Your task to perform on an android device: change the clock display to show seconds Image 0: 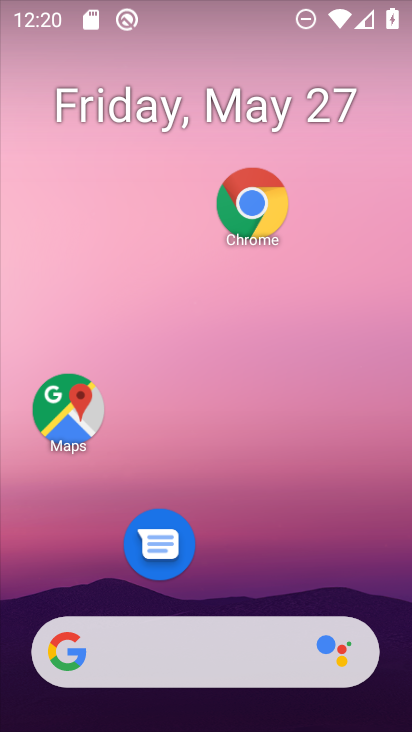
Step 0: drag from (217, 412) to (201, 41)
Your task to perform on an android device: change the clock display to show seconds Image 1: 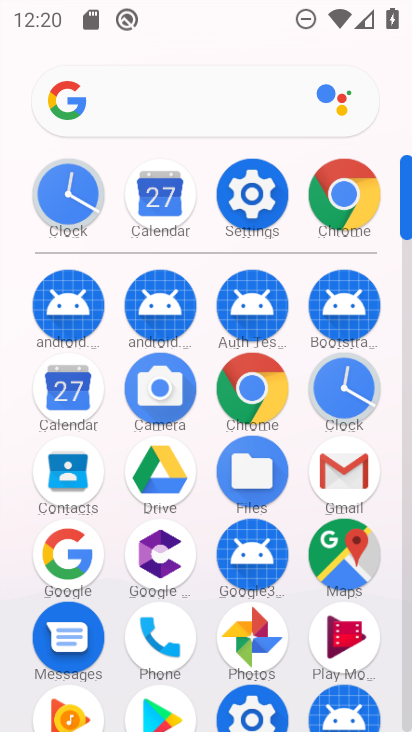
Step 1: click (341, 403)
Your task to perform on an android device: change the clock display to show seconds Image 2: 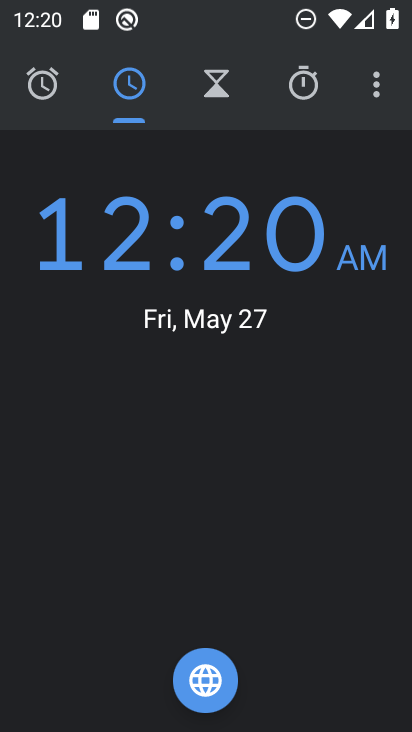
Step 2: click (376, 93)
Your task to perform on an android device: change the clock display to show seconds Image 3: 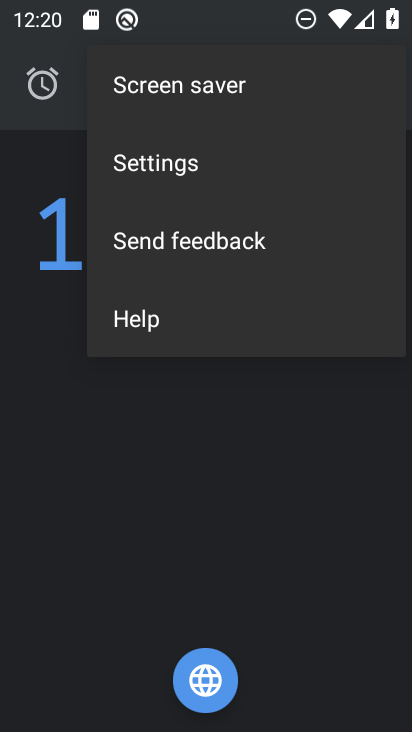
Step 3: click (234, 169)
Your task to perform on an android device: change the clock display to show seconds Image 4: 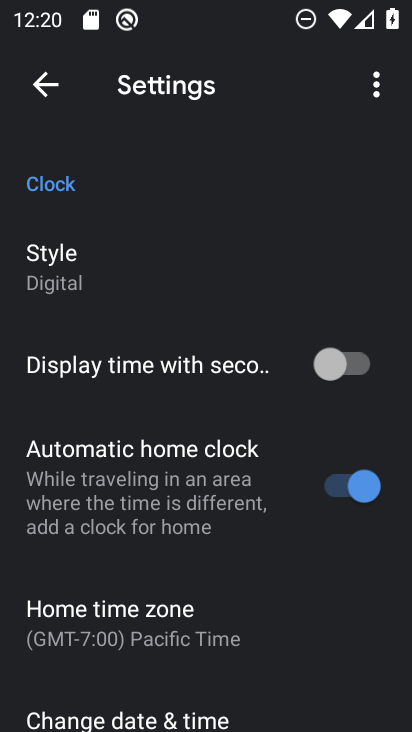
Step 4: click (210, 361)
Your task to perform on an android device: change the clock display to show seconds Image 5: 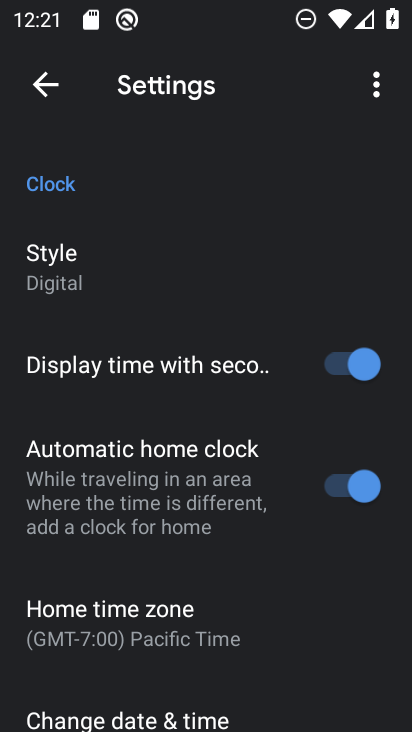
Step 5: task complete